Your task to perform on an android device: Open Chrome and go to settings Image 0: 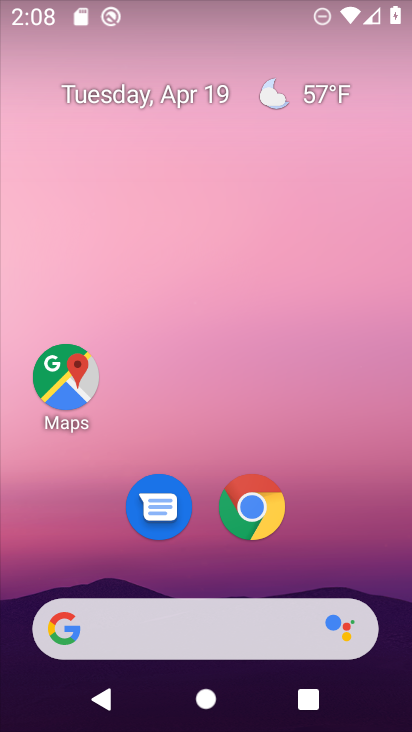
Step 0: click (262, 527)
Your task to perform on an android device: Open Chrome and go to settings Image 1: 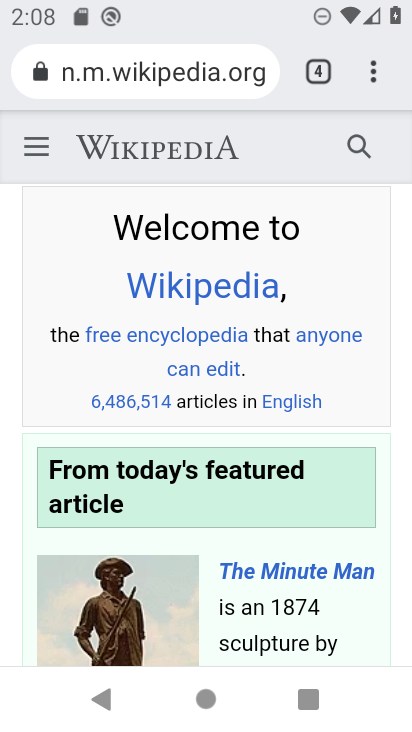
Step 1: click (373, 87)
Your task to perform on an android device: Open Chrome and go to settings Image 2: 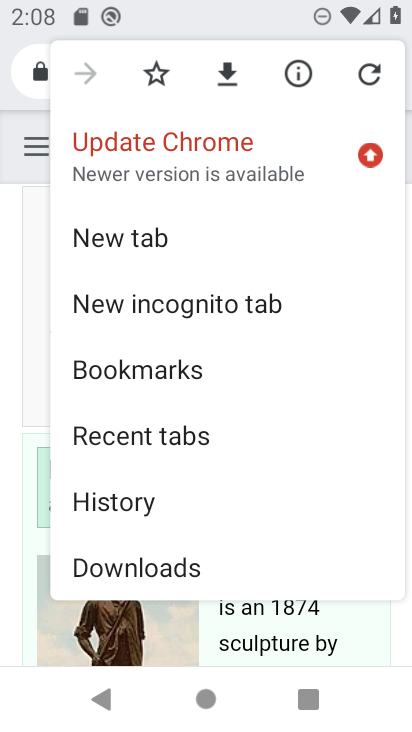
Step 2: drag from (284, 451) to (290, 171)
Your task to perform on an android device: Open Chrome and go to settings Image 3: 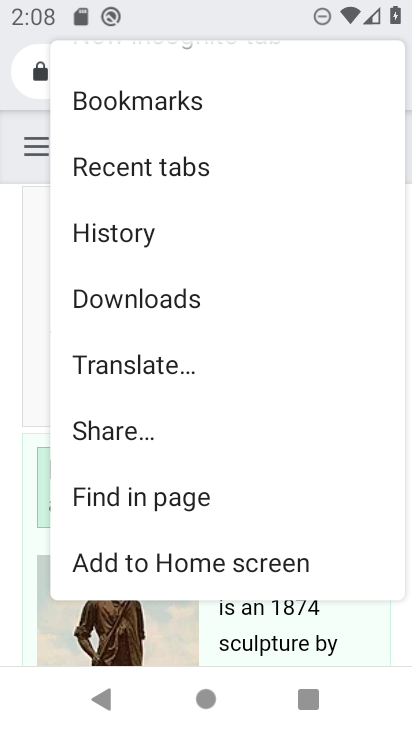
Step 3: drag from (196, 524) to (199, 194)
Your task to perform on an android device: Open Chrome and go to settings Image 4: 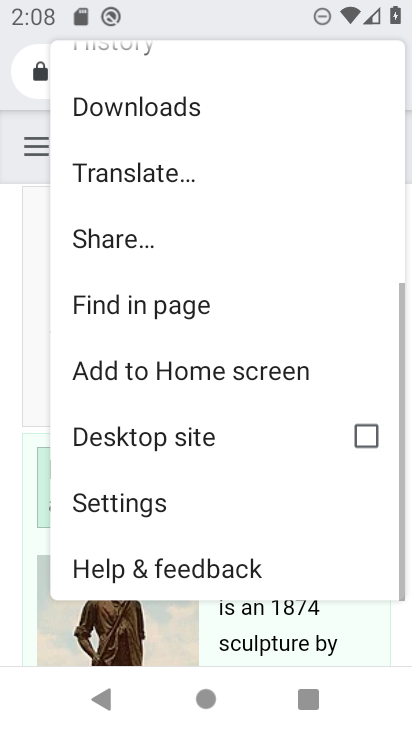
Step 4: click (193, 480)
Your task to perform on an android device: Open Chrome and go to settings Image 5: 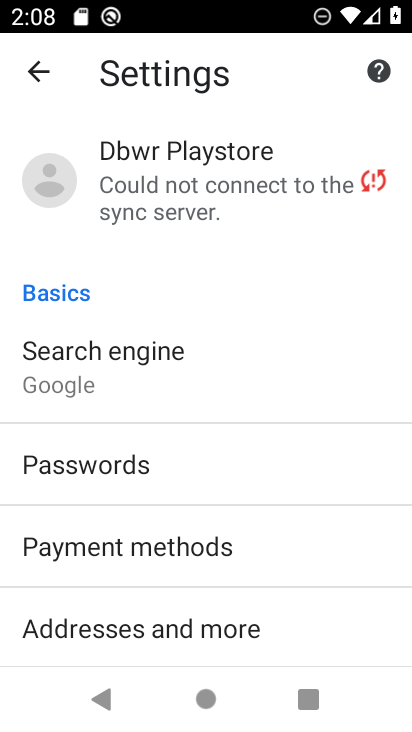
Step 5: task complete